Your task to perform on an android device: show emergency info Image 0: 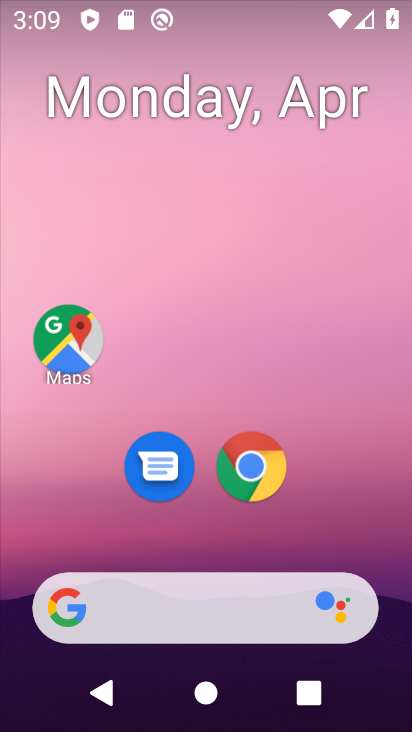
Step 0: drag from (230, 559) to (275, 213)
Your task to perform on an android device: show emergency info Image 1: 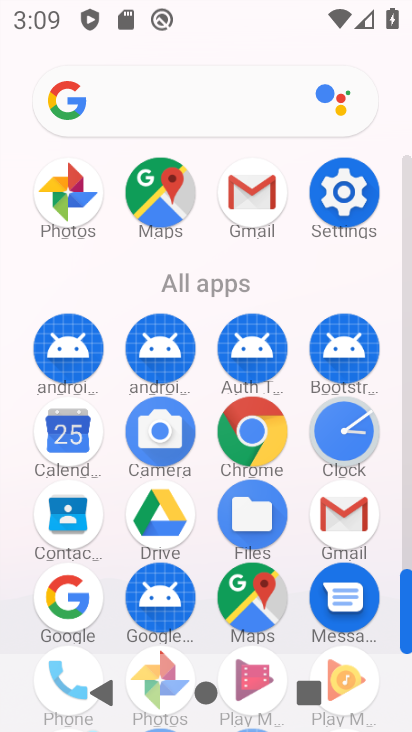
Step 1: click (356, 206)
Your task to perform on an android device: show emergency info Image 2: 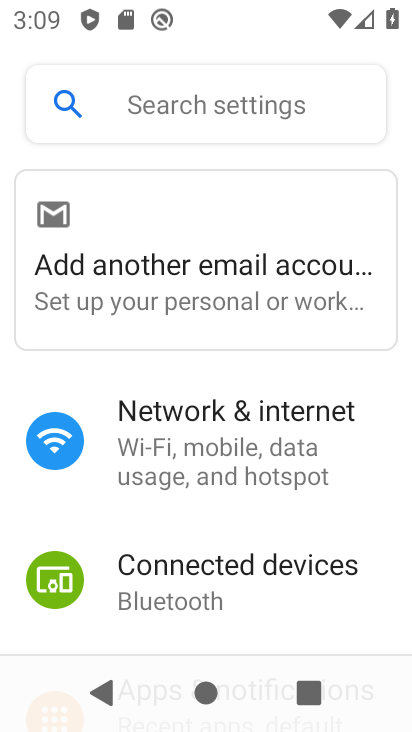
Step 2: drag from (290, 500) to (304, 204)
Your task to perform on an android device: show emergency info Image 3: 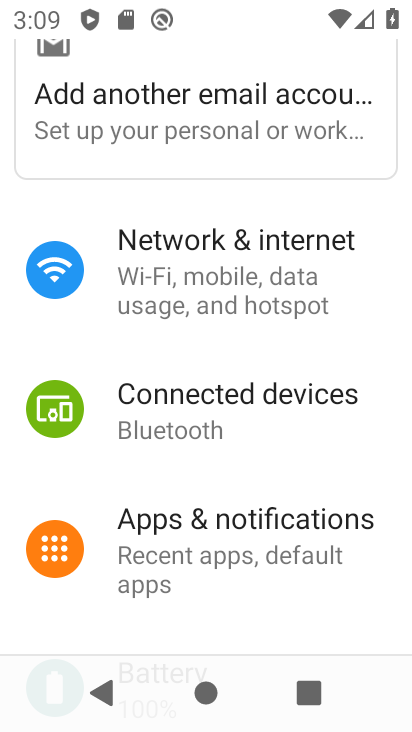
Step 3: drag from (233, 547) to (300, 113)
Your task to perform on an android device: show emergency info Image 4: 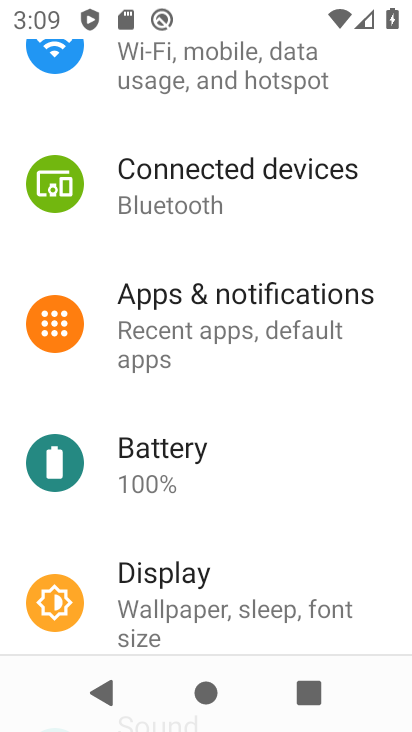
Step 4: drag from (260, 574) to (287, 58)
Your task to perform on an android device: show emergency info Image 5: 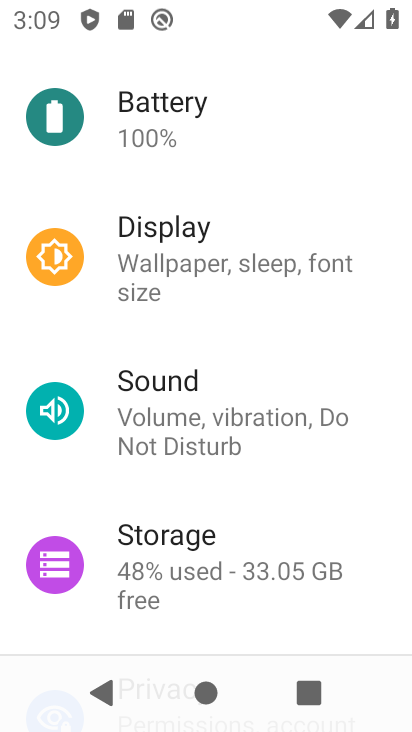
Step 5: drag from (245, 535) to (278, 48)
Your task to perform on an android device: show emergency info Image 6: 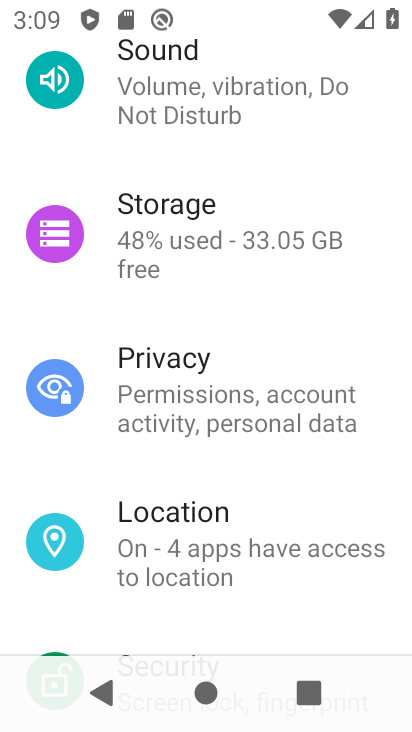
Step 6: drag from (216, 578) to (224, 84)
Your task to perform on an android device: show emergency info Image 7: 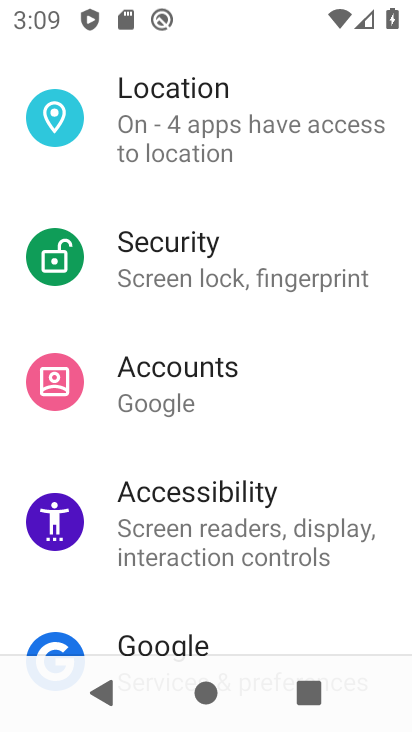
Step 7: drag from (209, 587) to (216, 113)
Your task to perform on an android device: show emergency info Image 8: 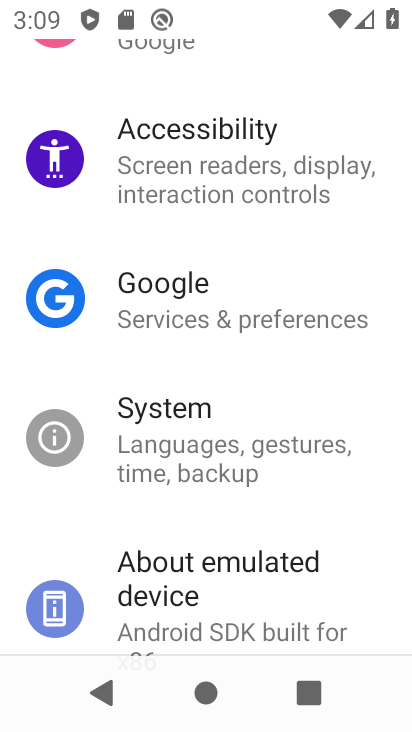
Step 8: drag from (180, 532) to (211, 142)
Your task to perform on an android device: show emergency info Image 9: 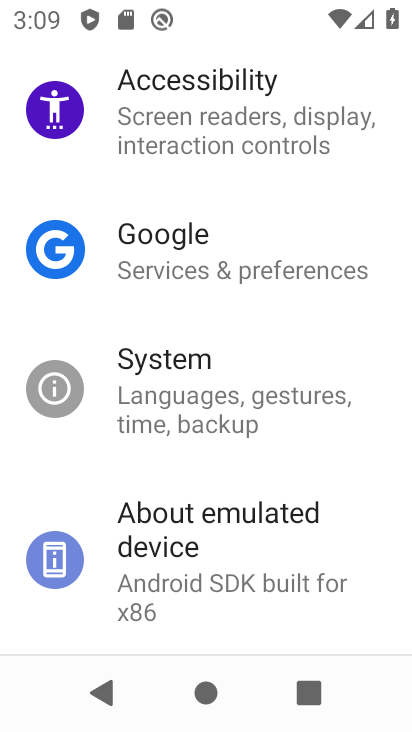
Step 9: click (198, 573)
Your task to perform on an android device: show emergency info Image 10: 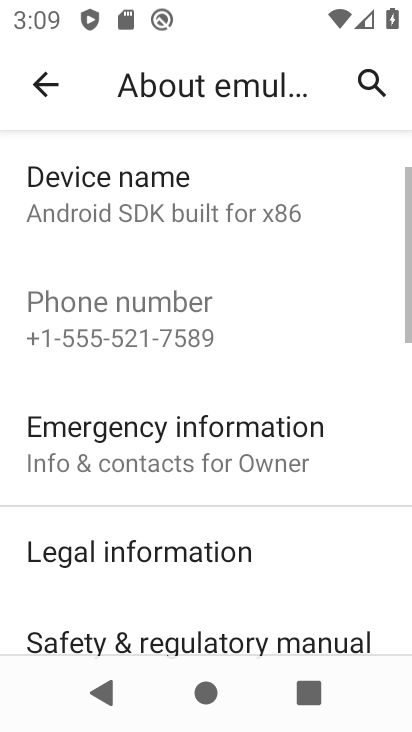
Step 10: click (212, 447)
Your task to perform on an android device: show emergency info Image 11: 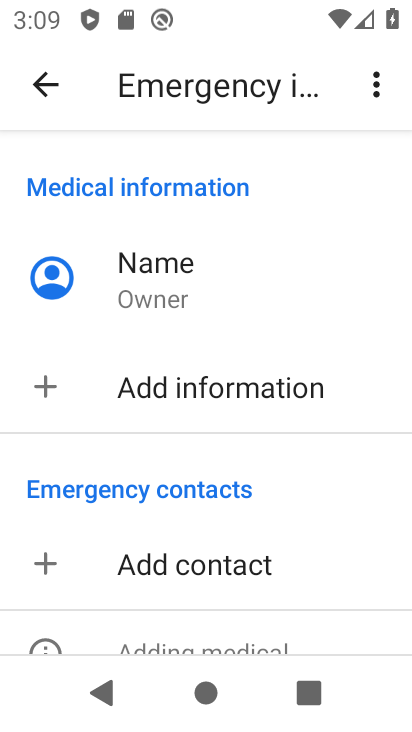
Step 11: task complete